Your task to perform on an android device: Check the weather Image 0: 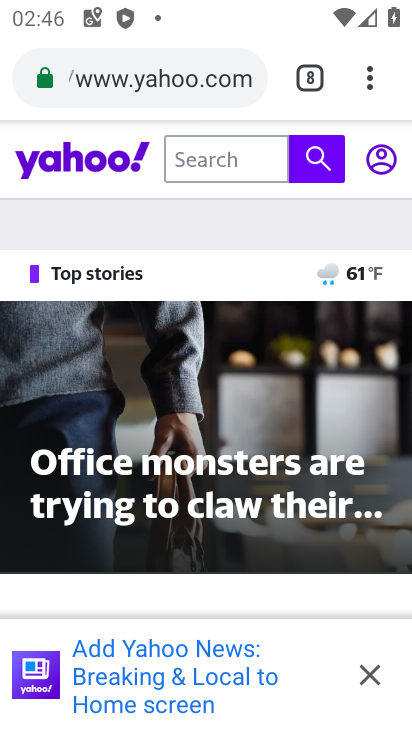
Step 0: press home button
Your task to perform on an android device: Check the weather Image 1: 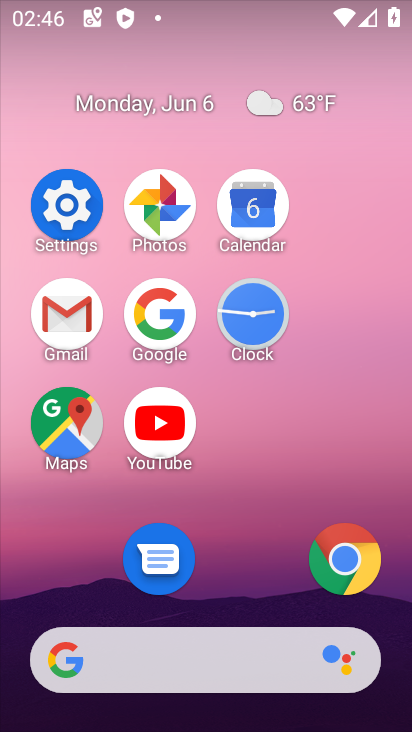
Step 1: click (159, 328)
Your task to perform on an android device: Check the weather Image 2: 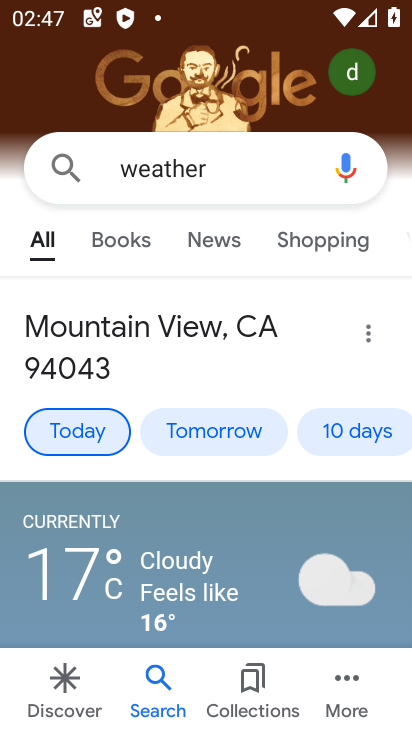
Step 2: task complete